Your task to perform on an android device: open device folders in google photos Image 0: 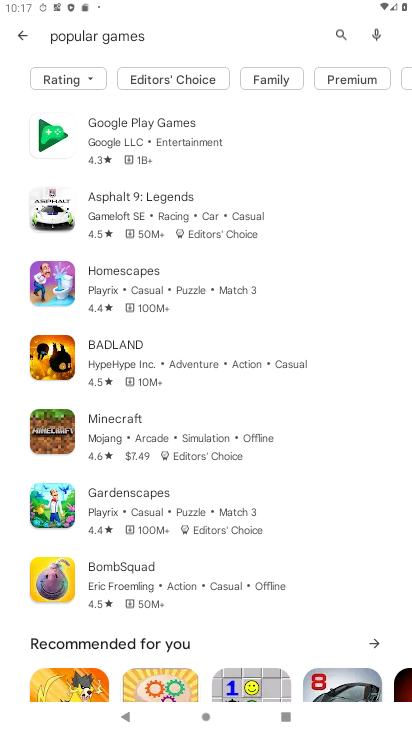
Step 0: press home button
Your task to perform on an android device: open device folders in google photos Image 1: 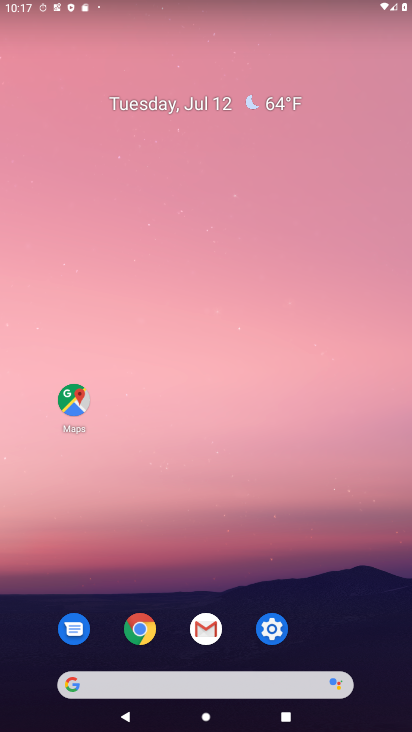
Step 1: drag from (255, 713) to (409, 82)
Your task to perform on an android device: open device folders in google photos Image 2: 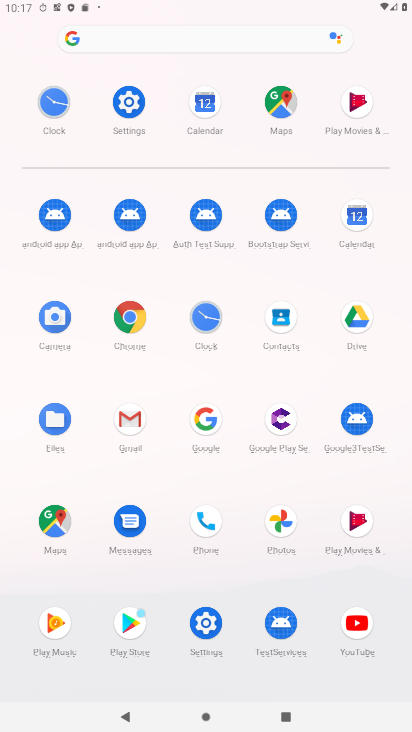
Step 2: click (280, 538)
Your task to perform on an android device: open device folders in google photos Image 3: 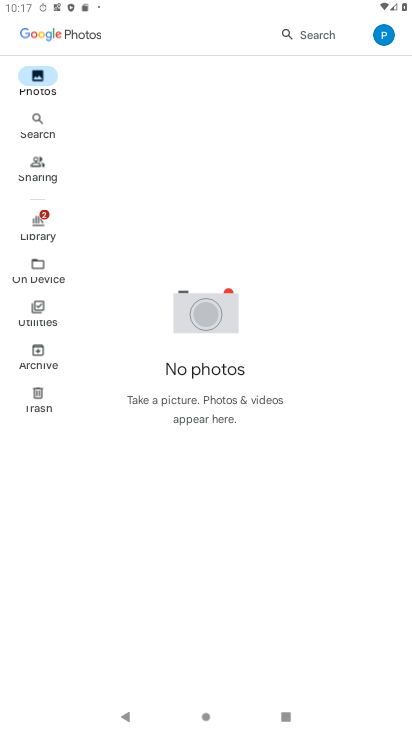
Step 3: click (380, 45)
Your task to perform on an android device: open device folders in google photos Image 4: 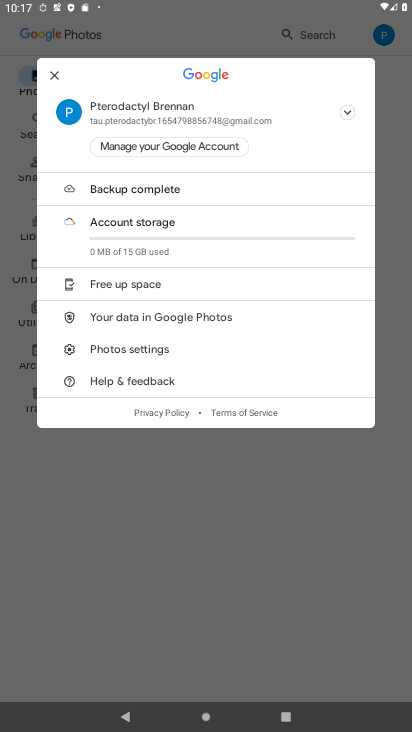
Step 4: click (149, 351)
Your task to perform on an android device: open device folders in google photos Image 5: 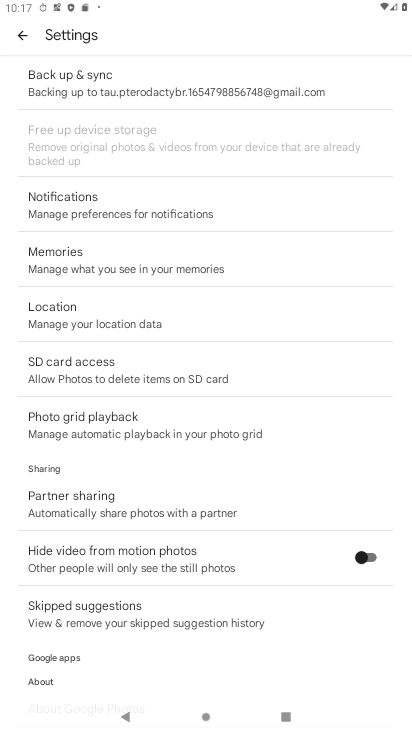
Step 5: click (29, 34)
Your task to perform on an android device: open device folders in google photos Image 6: 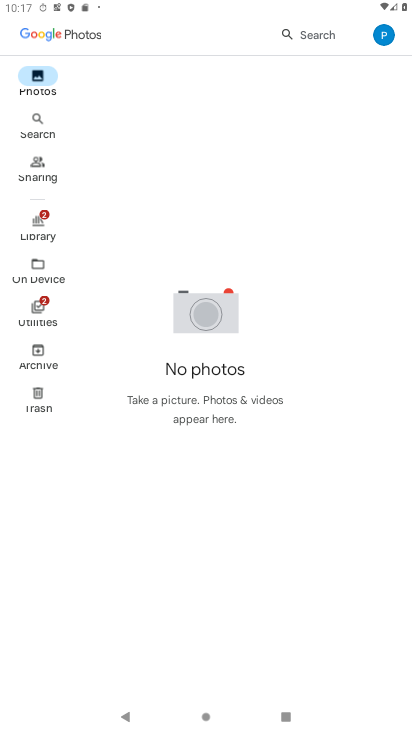
Step 6: click (38, 275)
Your task to perform on an android device: open device folders in google photos Image 7: 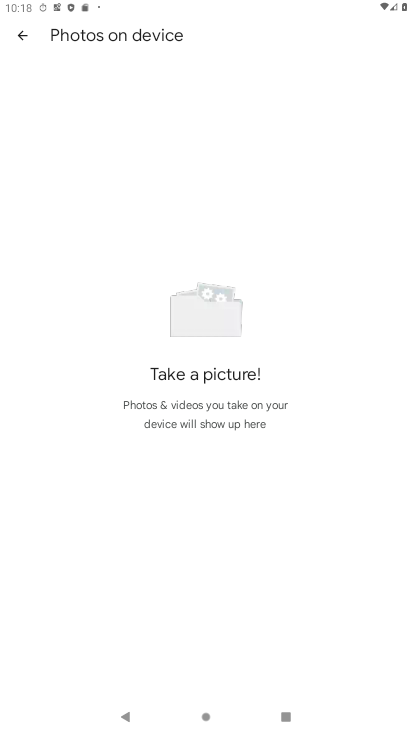
Step 7: task complete